Your task to perform on an android device: Go to location settings Image 0: 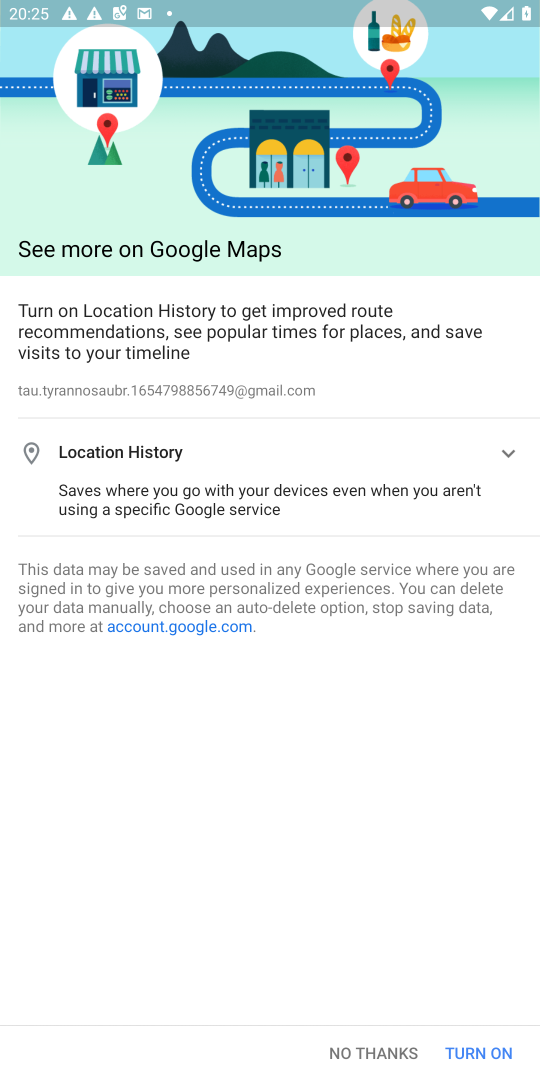
Step 0: click (392, 1051)
Your task to perform on an android device: Go to location settings Image 1: 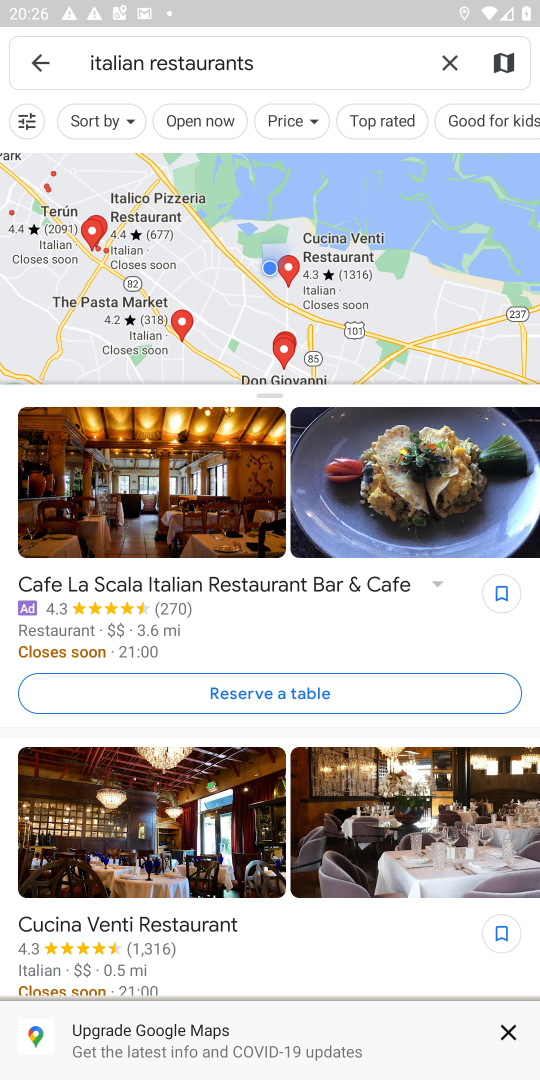
Step 1: press home button
Your task to perform on an android device: Go to location settings Image 2: 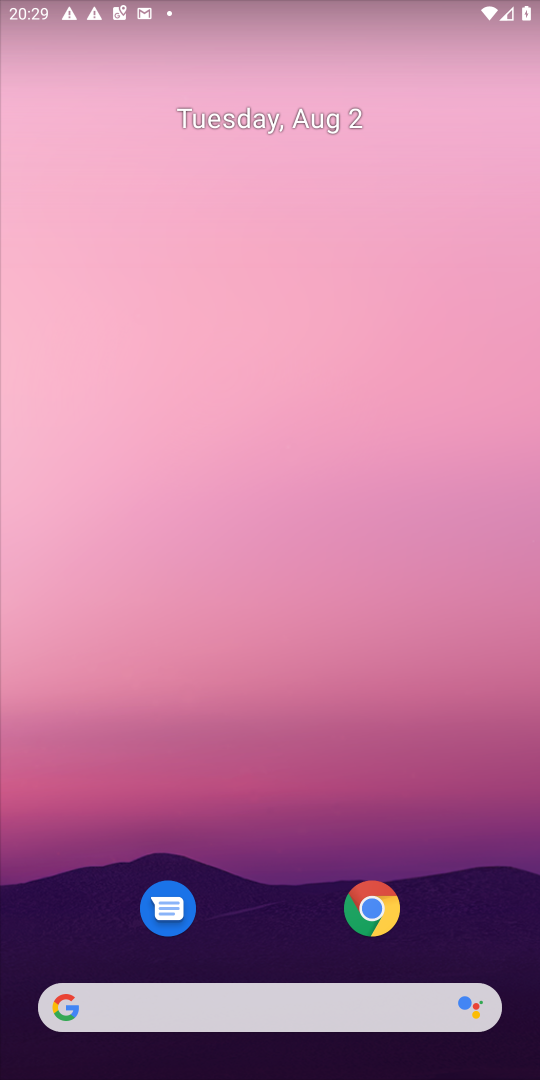
Step 2: drag from (295, 614) to (316, 50)
Your task to perform on an android device: Go to location settings Image 3: 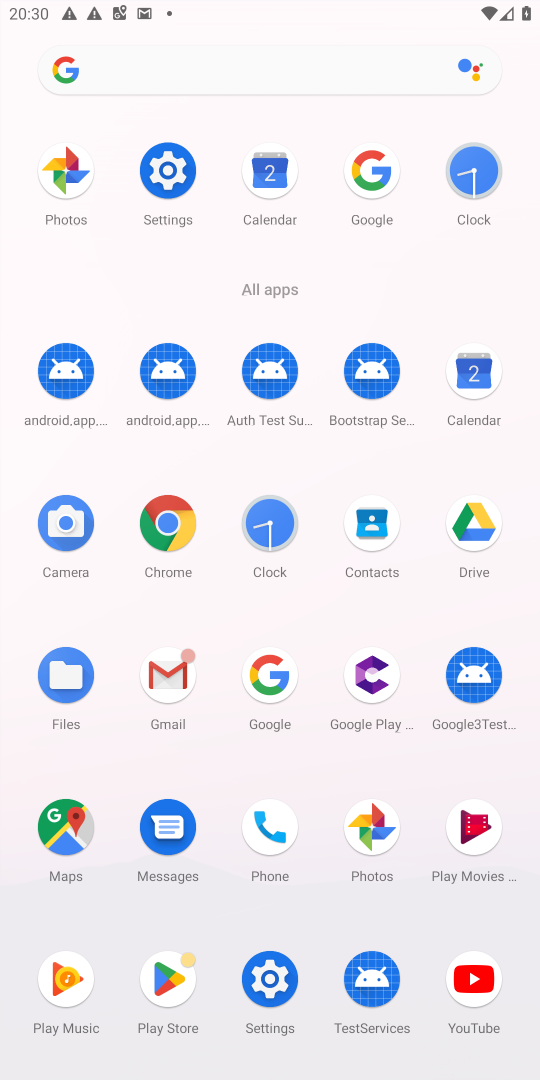
Step 3: click (173, 184)
Your task to perform on an android device: Go to location settings Image 4: 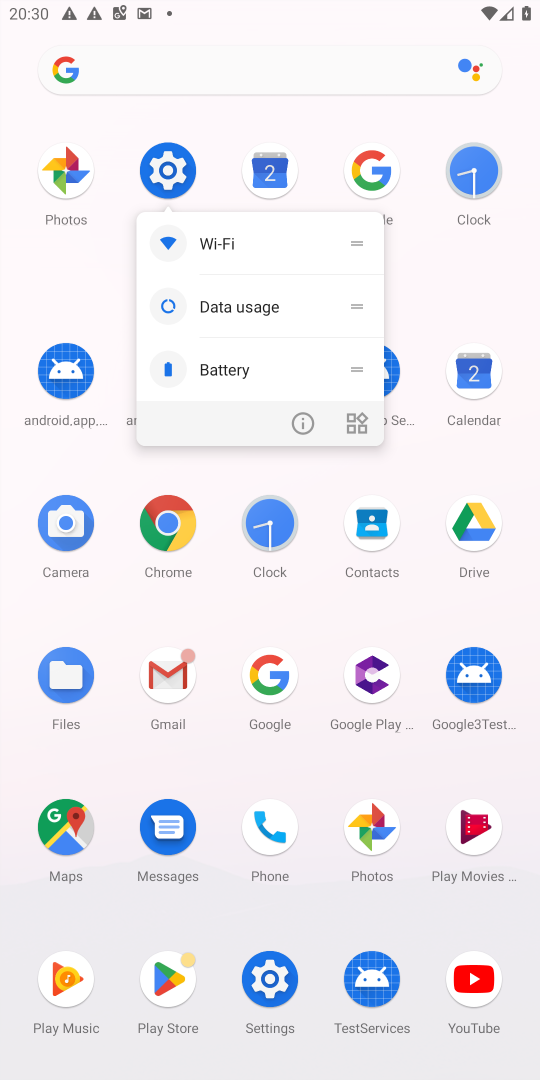
Step 4: click (173, 180)
Your task to perform on an android device: Go to location settings Image 5: 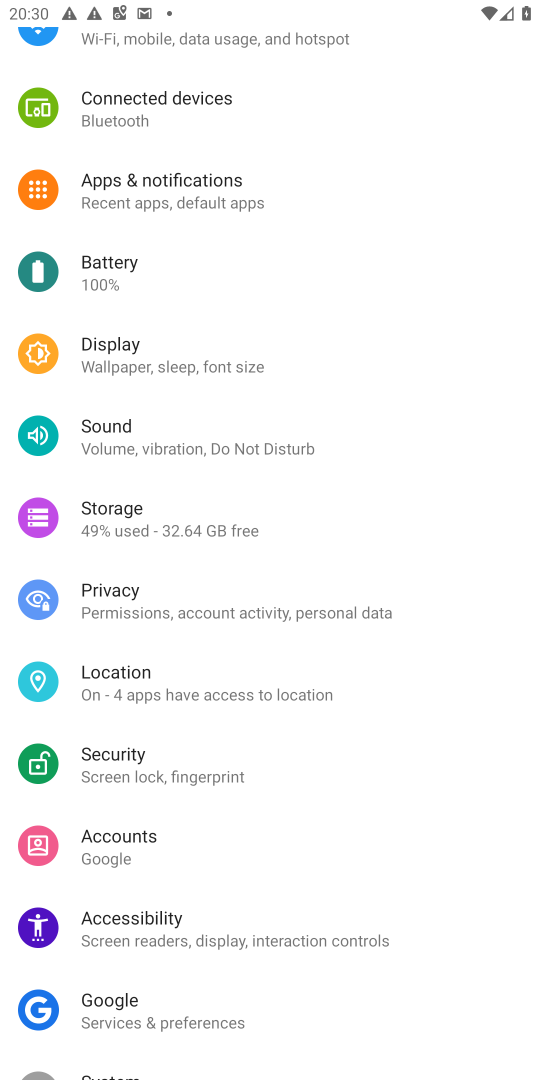
Step 5: click (150, 683)
Your task to perform on an android device: Go to location settings Image 6: 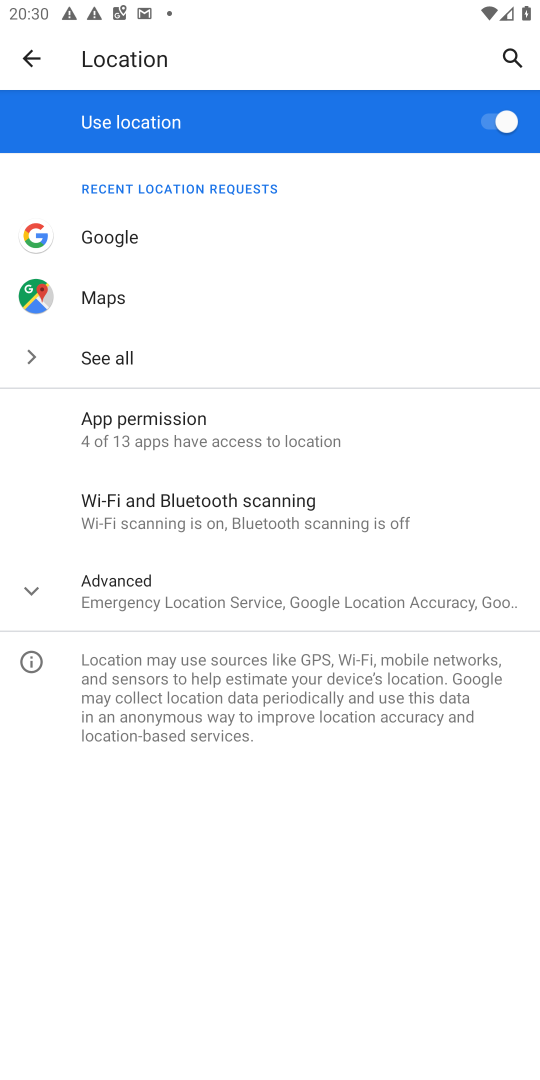
Step 6: task complete